Your task to perform on an android device: turn off airplane mode Image 0: 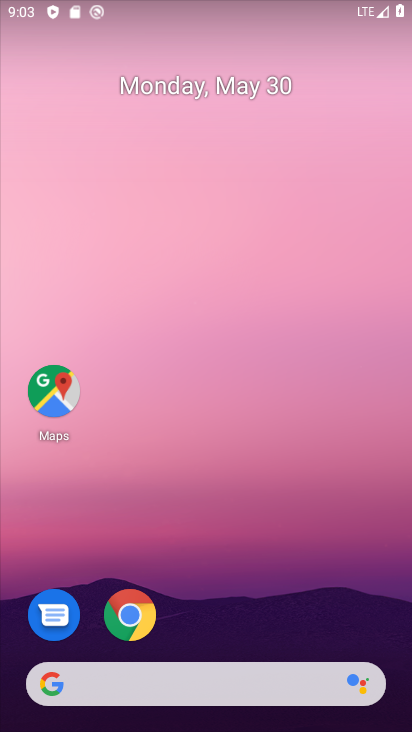
Step 0: drag from (242, 17) to (99, 590)
Your task to perform on an android device: turn off airplane mode Image 1: 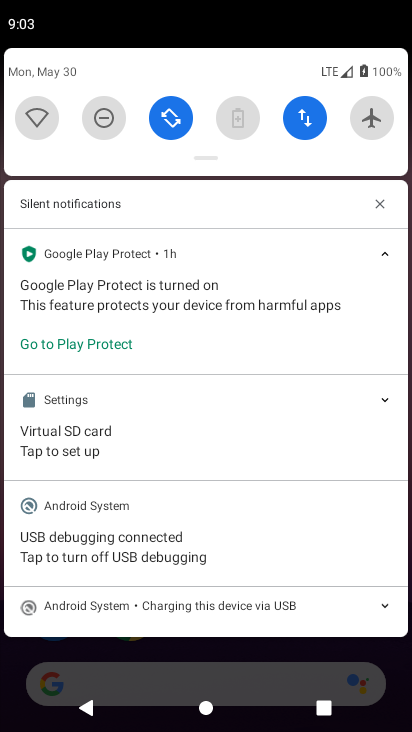
Step 1: task complete